Your task to perform on an android device: turn off smart reply in the gmail app Image 0: 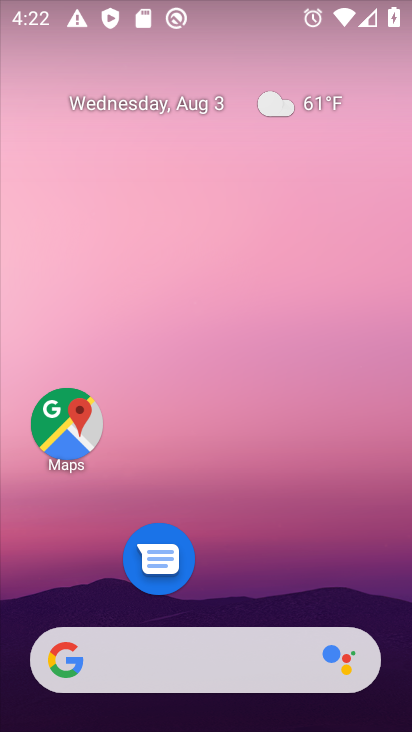
Step 0: drag from (195, 625) to (195, 233)
Your task to perform on an android device: turn off smart reply in the gmail app Image 1: 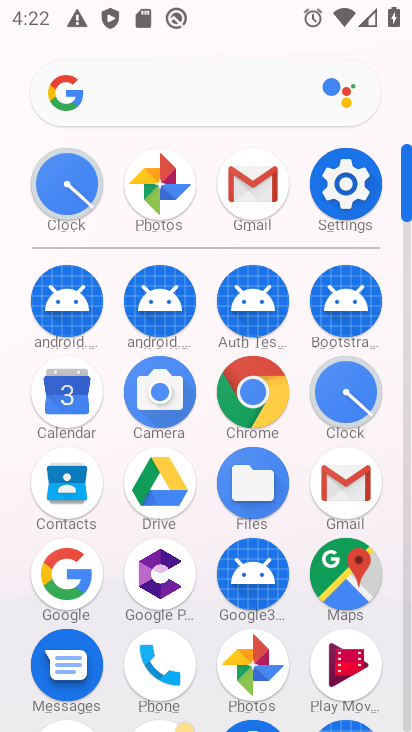
Step 1: click (251, 197)
Your task to perform on an android device: turn off smart reply in the gmail app Image 2: 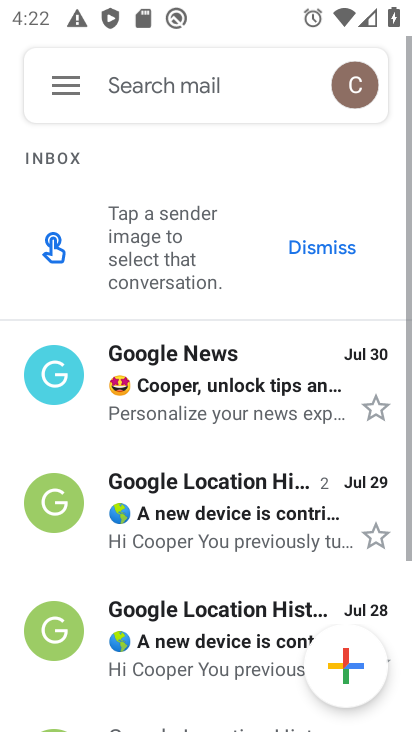
Step 2: click (52, 91)
Your task to perform on an android device: turn off smart reply in the gmail app Image 3: 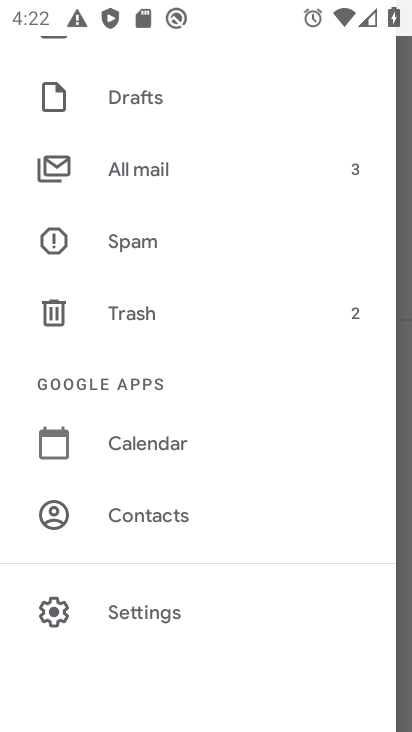
Step 3: click (163, 606)
Your task to perform on an android device: turn off smart reply in the gmail app Image 4: 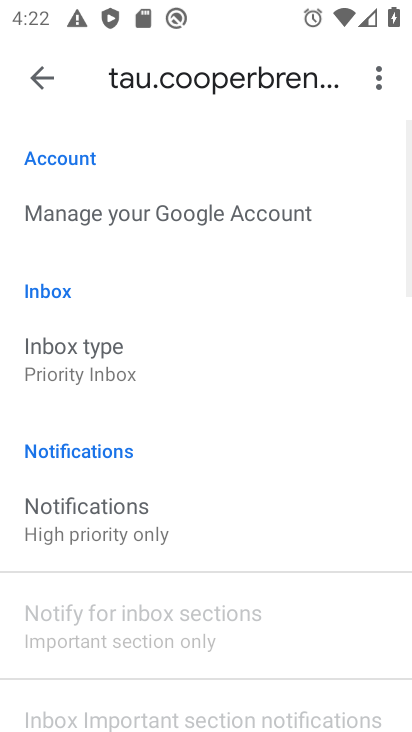
Step 4: drag from (152, 598) to (130, 214)
Your task to perform on an android device: turn off smart reply in the gmail app Image 5: 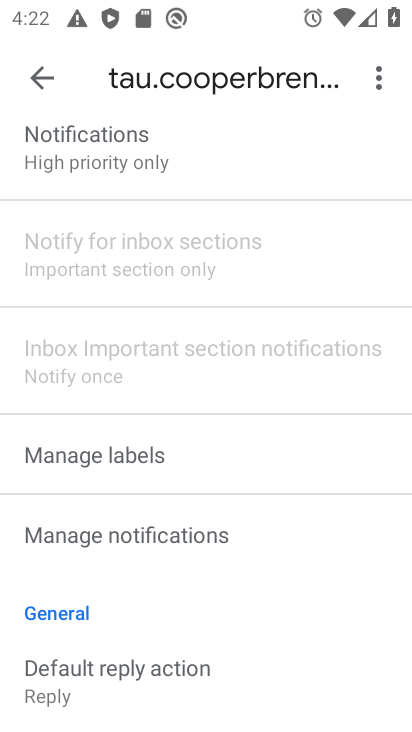
Step 5: drag from (129, 637) to (111, 248)
Your task to perform on an android device: turn off smart reply in the gmail app Image 6: 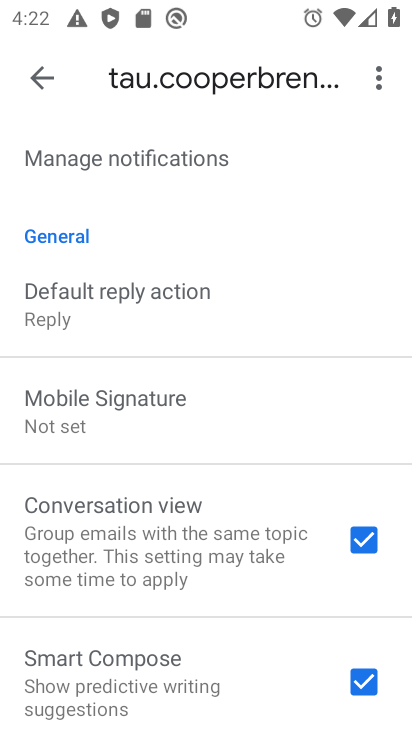
Step 6: drag from (135, 526) to (98, 198)
Your task to perform on an android device: turn off smart reply in the gmail app Image 7: 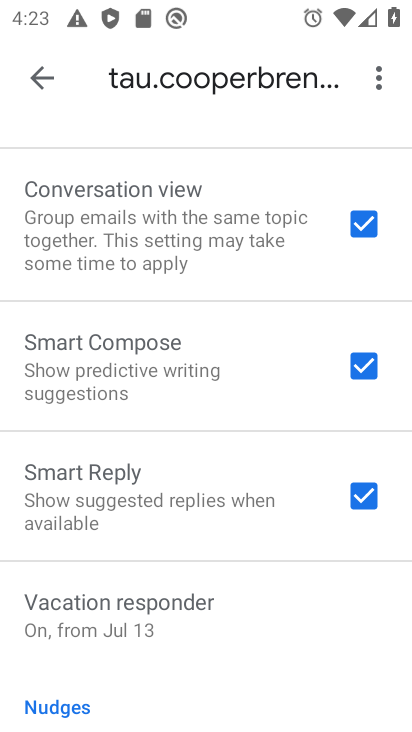
Step 7: click (368, 496)
Your task to perform on an android device: turn off smart reply in the gmail app Image 8: 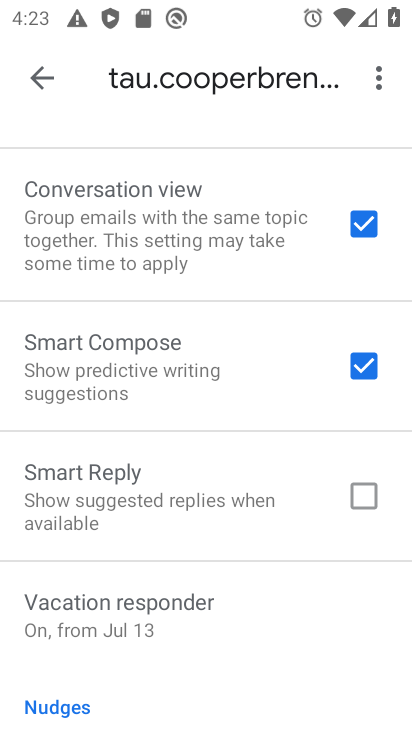
Step 8: task complete